Your task to perform on an android device: Open Youtube and go to "Your channel" Image 0: 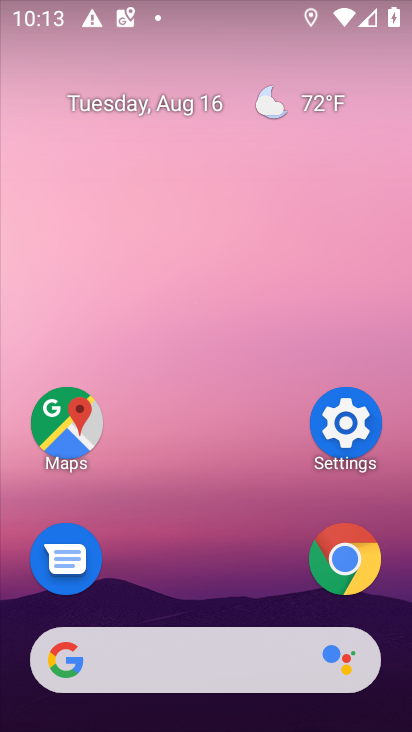
Step 0: drag from (207, 592) to (366, 20)
Your task to perform on an android device: Open Youtube and go to "Your channel" Image 1: 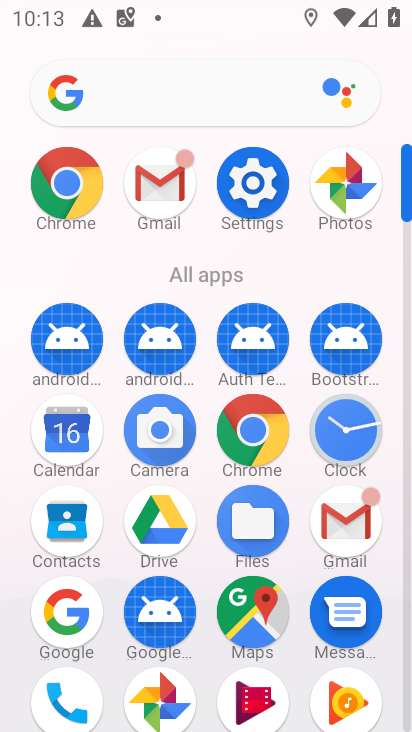
Step 1: drag from (199, 577) to (352, 21)
Your task to perform on an android device: Open Youtube and go to "Your channel" Image 2: 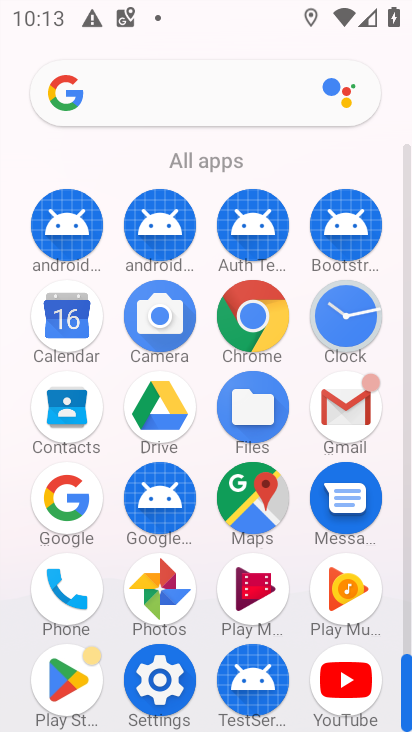
Step 2: click (353, 681)
Your task to perform on an android device: Open Youtube and go to "Your channel" Image 3: 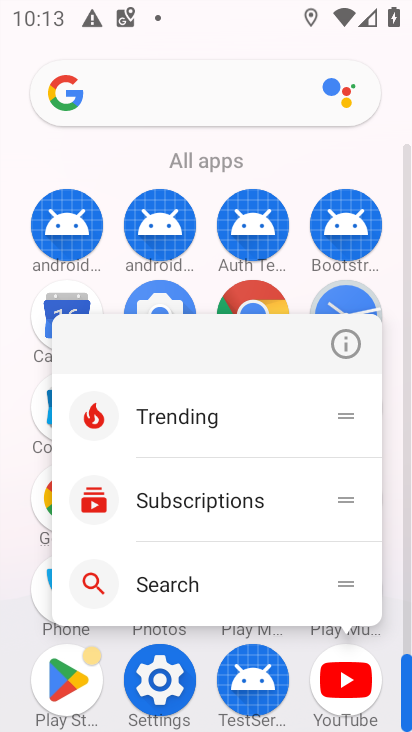
Step 3: click (353, 682)
Your task to perform on an android device: Open Youtube and go to "Your channel" Image 4: 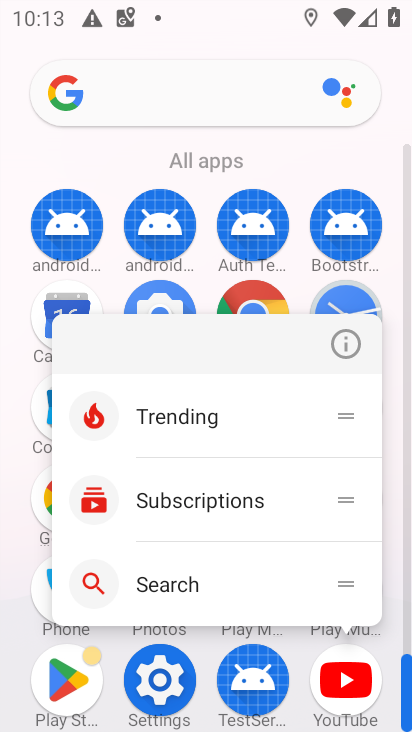
Step 4: click (343, 686)
Your task to perform on an android device: Open Youtube and go to "Your channel" Image 5: 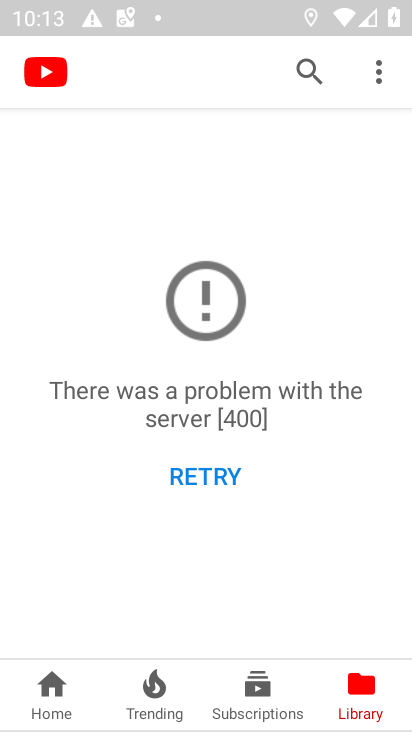
Step 5: click (204, 466)
Your task to perform on an android device: Open Youtube and go to "Your channel" Image 6: 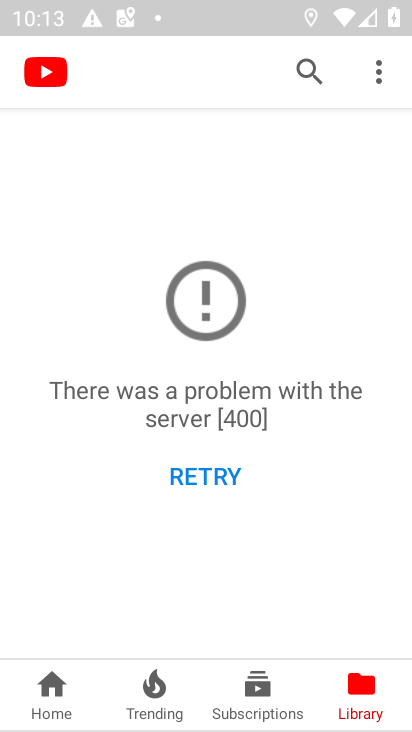
Step 6: click (204, 465)
Your task to perform on an android device: Open Youtube and go to "Your channel" Image 7: 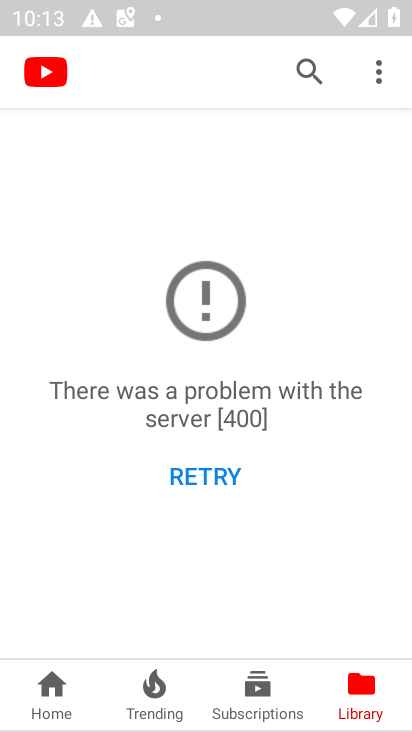
Step 7: click (65, 690)
Your task to perform on an android device: Open Youtube and go to "Your channel" Image 8: 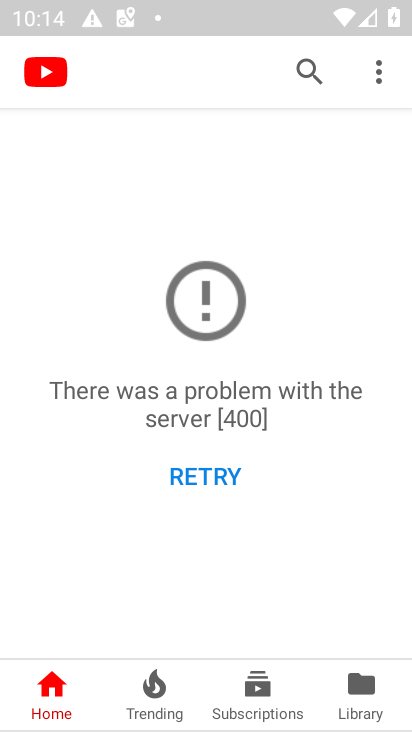
Step 8: click (213, 480)
Your task to perform on an android device: Open Youtube and go to "Your channel" Image 9: 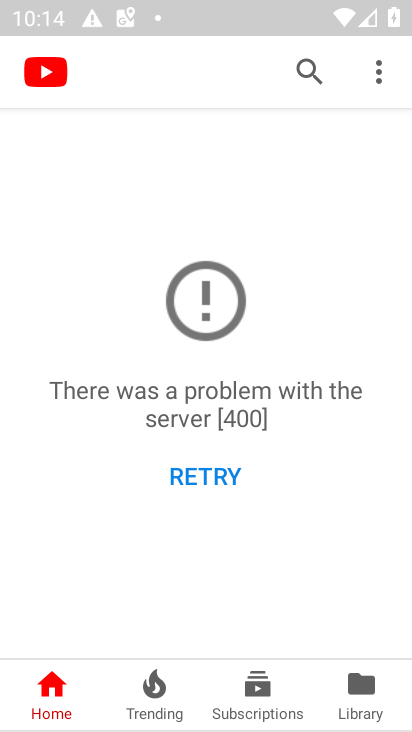
Step 9: task complete